Your task to perform on an android device: change the clock style Image 0: 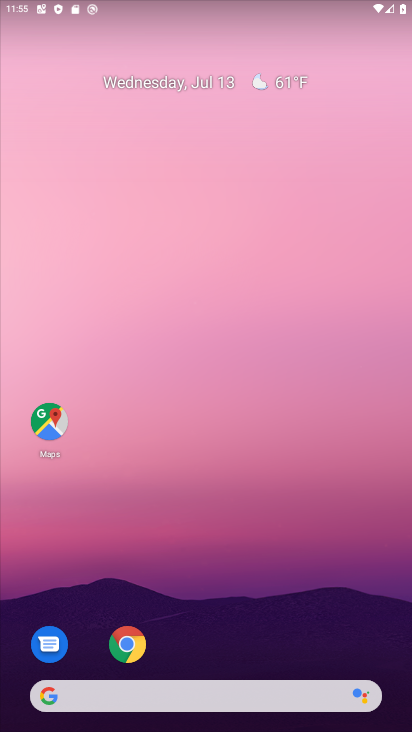
Step 0: drag from (253, 610) to (323, 243)
Your task to perform on an android device: change the clock style Image 1: 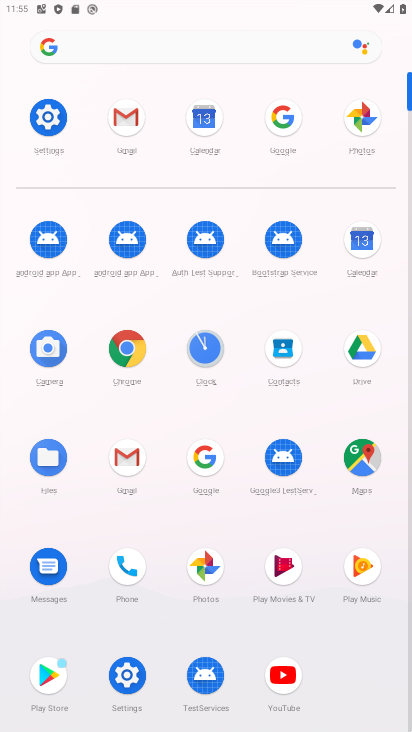
Step 1: click (200, 350)
Your task to perform on an android device: change the clock style Image 2: 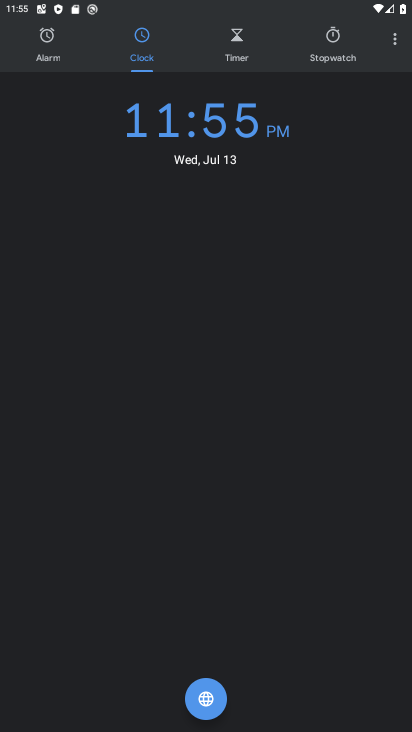
Step 2: click (391, 42)
Your task to perform on an android device: change the clock style Image 3: 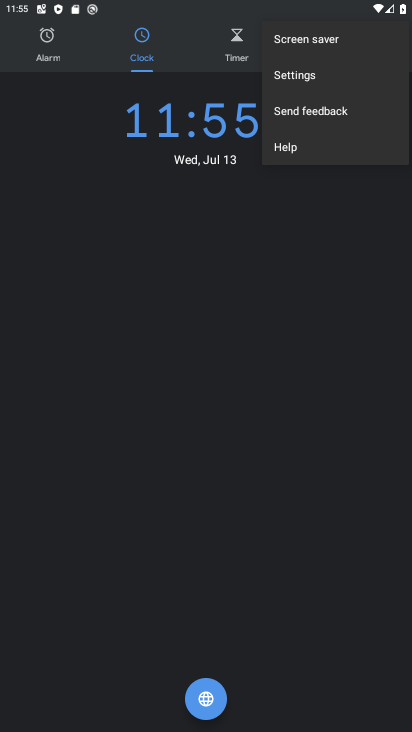
Step 3: click (300, 67)
Your task to perform on an android device: change the clock style Image 4: 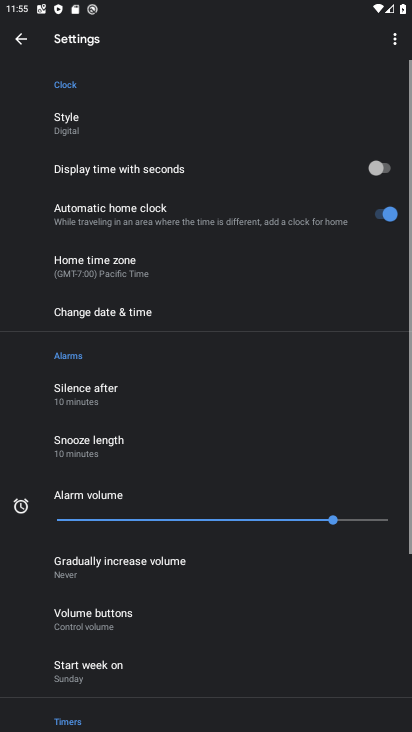
Step 4: click (109, 119)
Your task to perform on an android device: change the clock style Image 5: 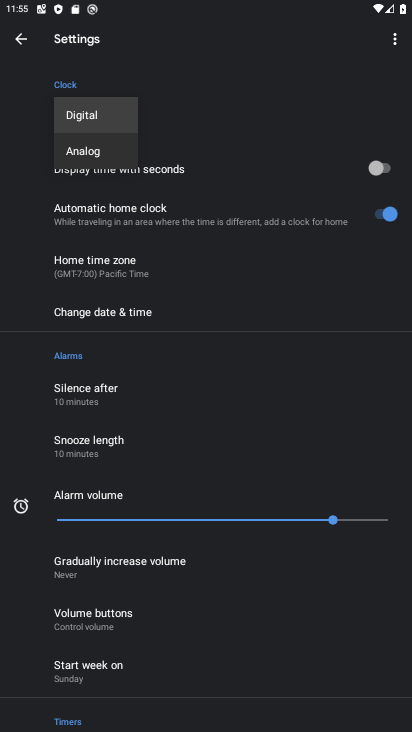
Step 5: click (94, 155)
Your task to perform on an android device: change the clock style Image 6: 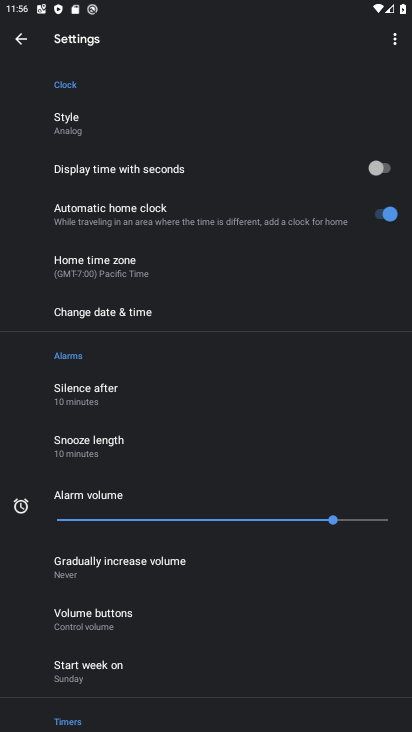
Step 6: task complete